Your task to perform on an android device: see creations saved in the google photos Image 0: 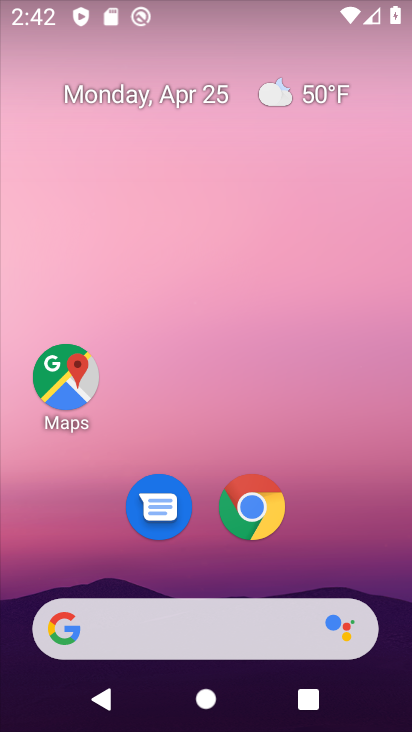
Step 0: drag from (394, 569) to (384, 107)
Your task to perform on an android device: see creations saved in the google photos Image 1: 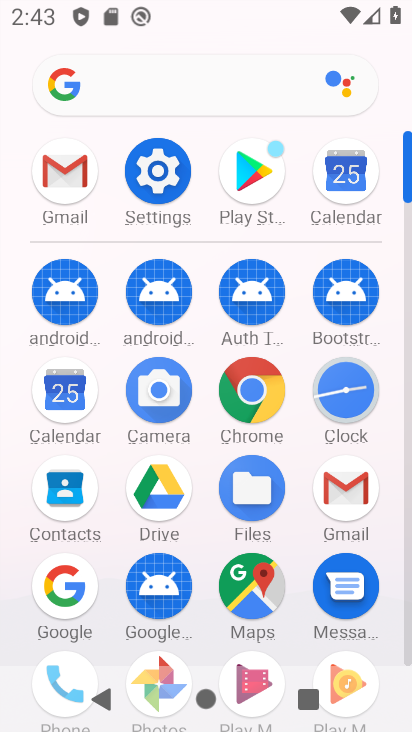
Step 1: click (408, 640)
Your task to perform on an android device: see creations saved in the google photos Image 2: 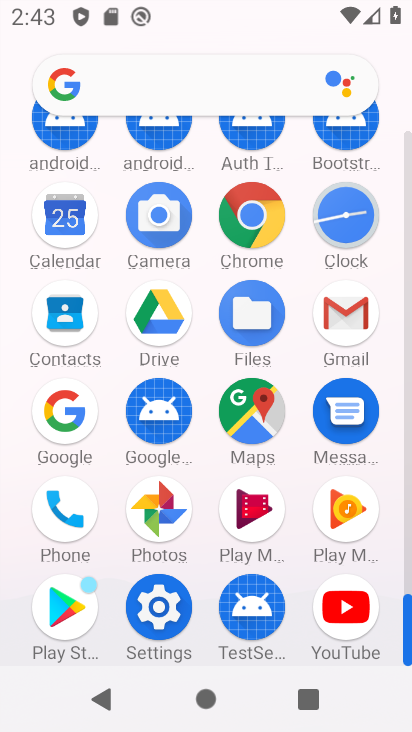
Step 2: click (161, 509)
Your task to perform on an android device: see creations saved in the google photos Image 3: 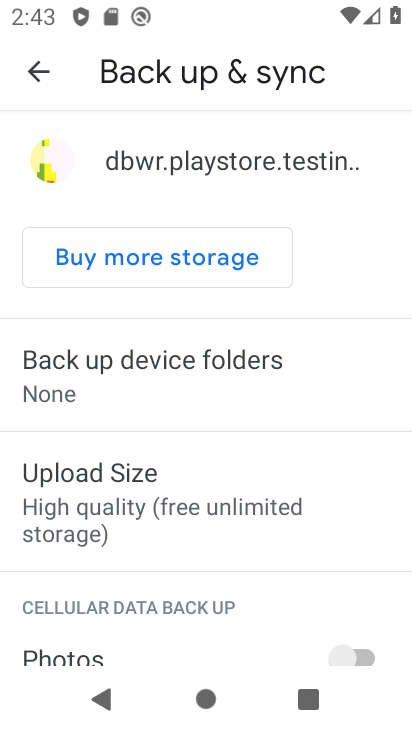
Step 3: task complete